Your task to perform on an android device: empty trash in google photos Image 0: 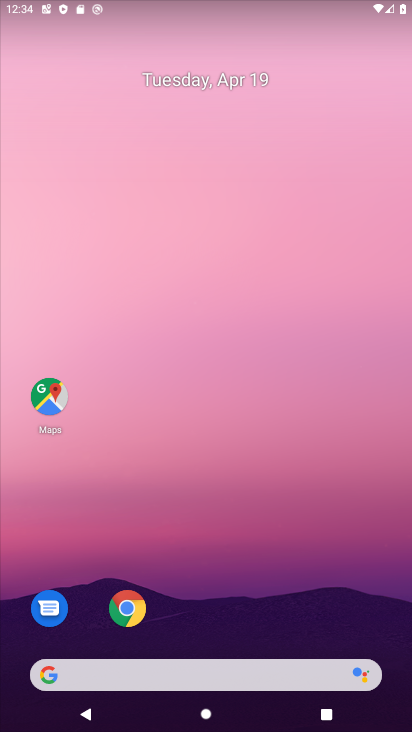
Step 0: drag from (176, 655) to (292, 133)
Your task to perform on an android device: empty trash in google photos Image 1: 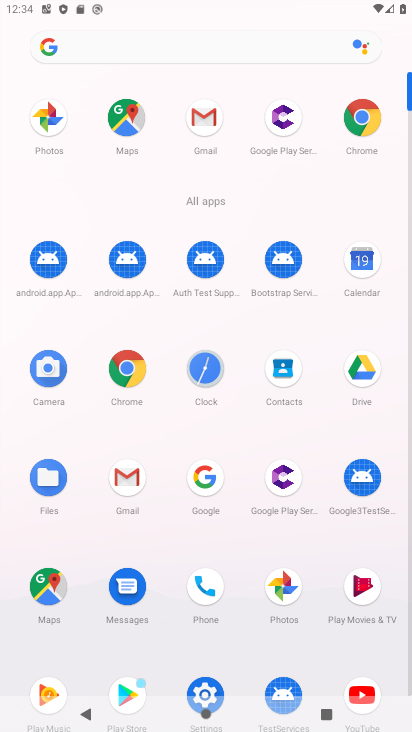
Step 1: click (280, 591)
Your task to perform on an android device: empty trash in google photos Image 2: 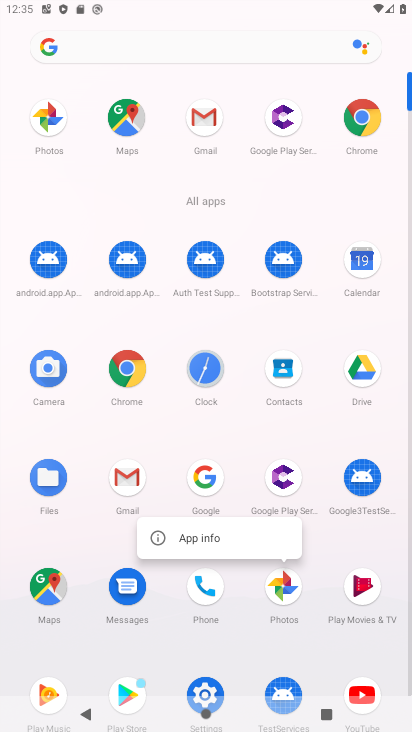
Step 2: click (283, 587)
Your task to perform on an android device: empty trash in google photos Image 3: 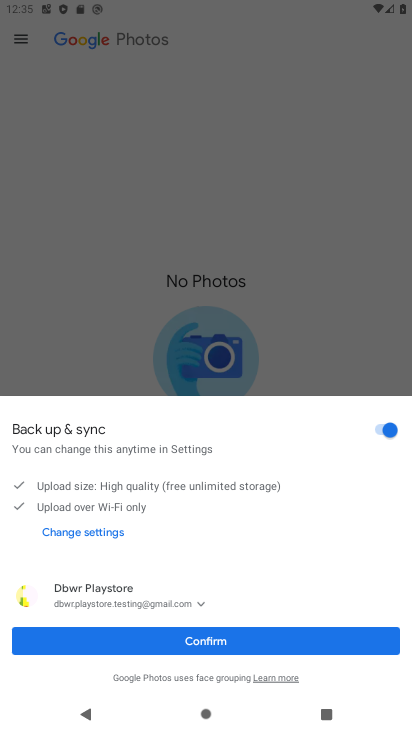
Step 3: click (262, 642)
Your task to perform on an android device: empty trash in google photos Image 4: 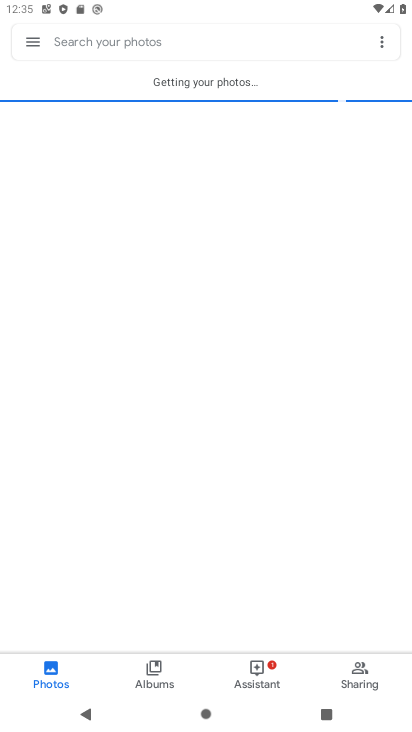
Step 4: click (230, 641)
Your task to perform on an android device: empty trash in google photos Image 5: 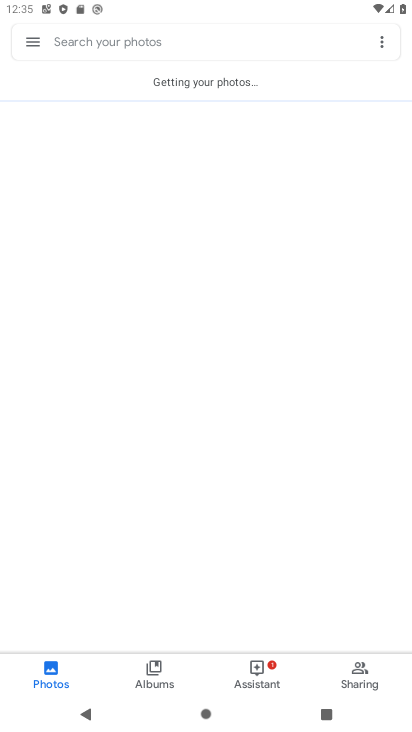
Step 5: click (34, 40)
Your task to perform on an android device: empty trash in google photos Image 6: 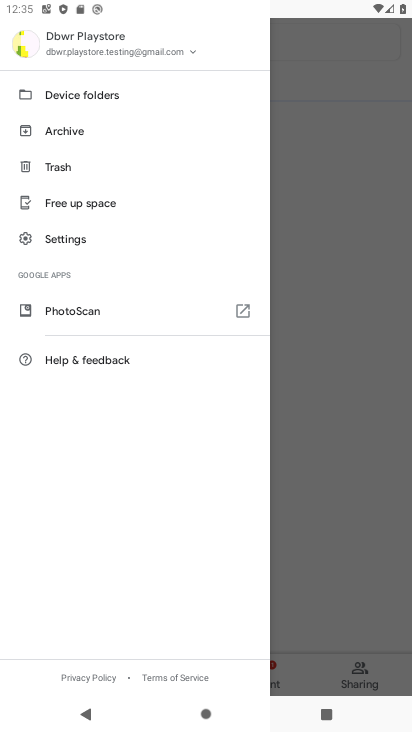
Step 6: click (101, 170)
Your task to perform on an android device: empty trash in google photos Image 7: 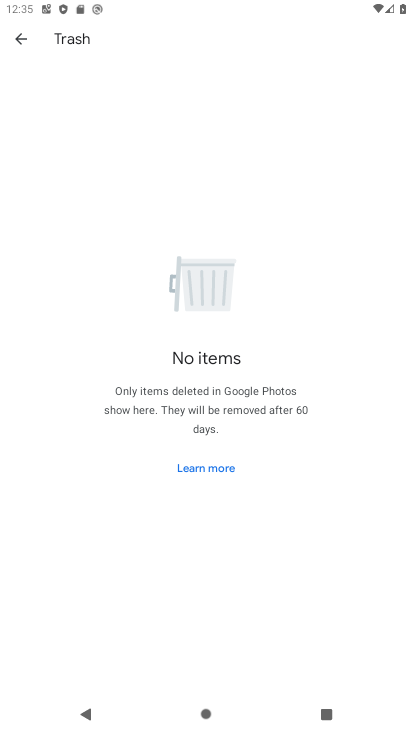
Step 7: task complete